Your task to perform on an android device: add a contact Image 0: 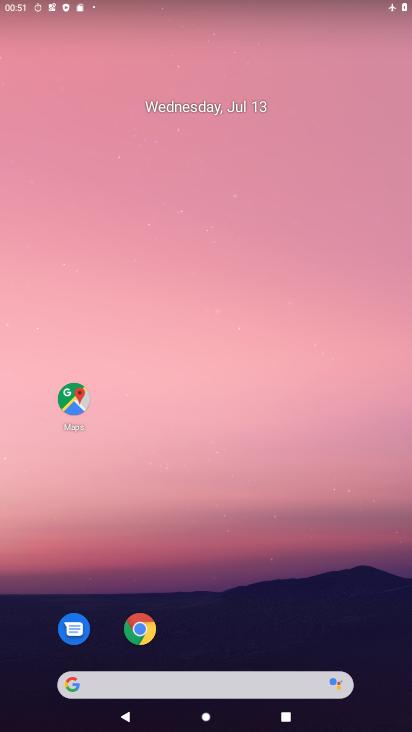
Step 0: drag from (234, 638) to (231, 379)
Your task to perform on an android device: add a contact Image 1: 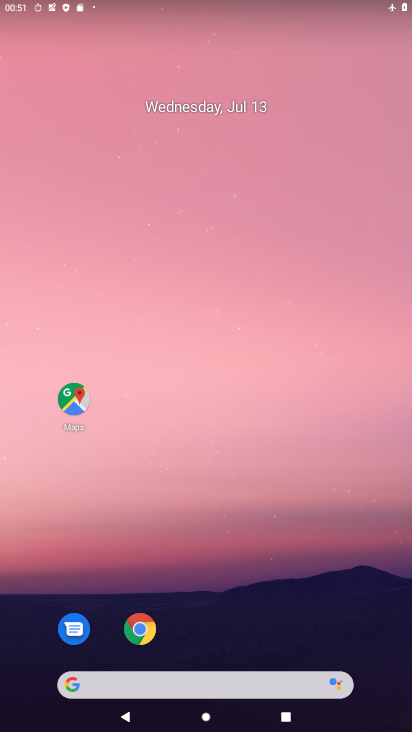
Step 1: drag from (220, 629) to (239, 255)
Your task to perform on an android device: add a contact Image 2: 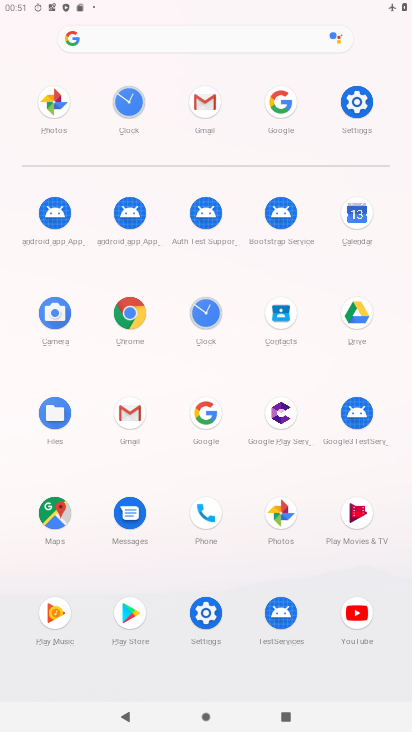
Step 2: click (273, 314)
Your task to perform on an android device: add a contact Image 3: 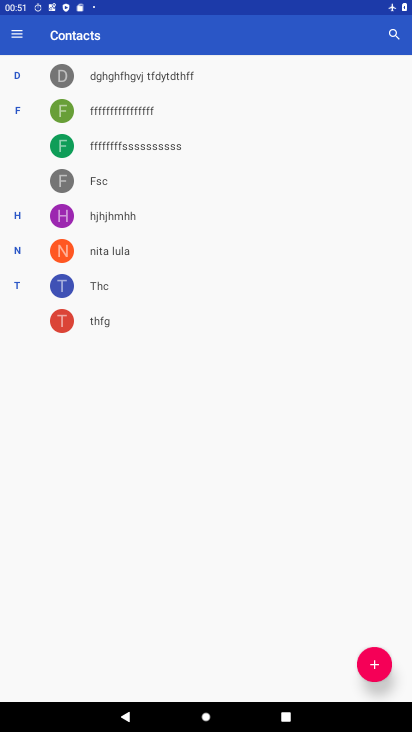
Step 3: click (380, 654)
Your task to perform on an android device: add a contact Image 4: 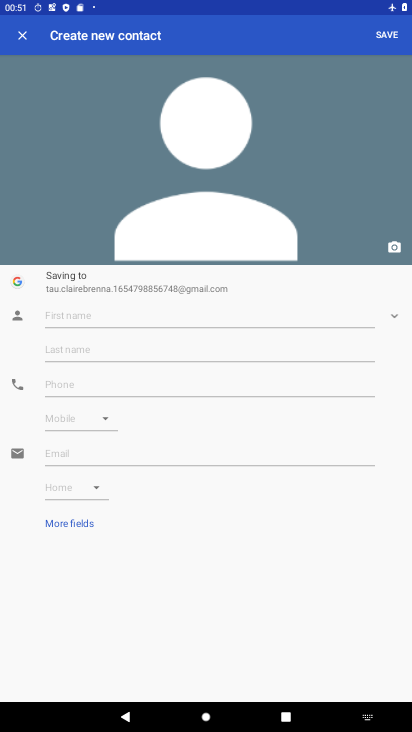
Step 4: type "gdgh"
Your task to perform on an android device: add a contact Image 5: 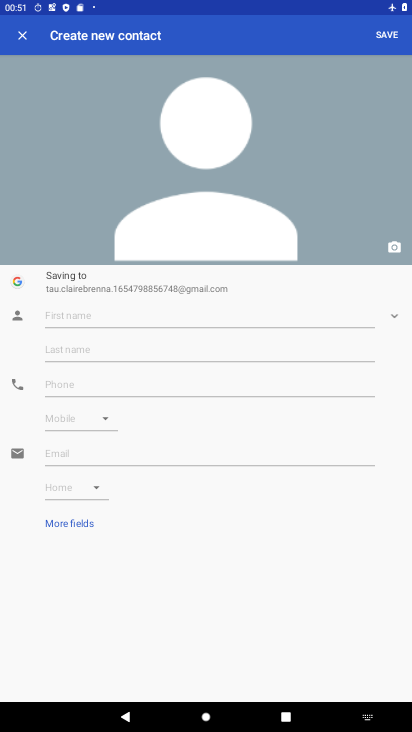
Step 5: click (91, 382)
Your task to perform on an android device: add a contact Image 6: 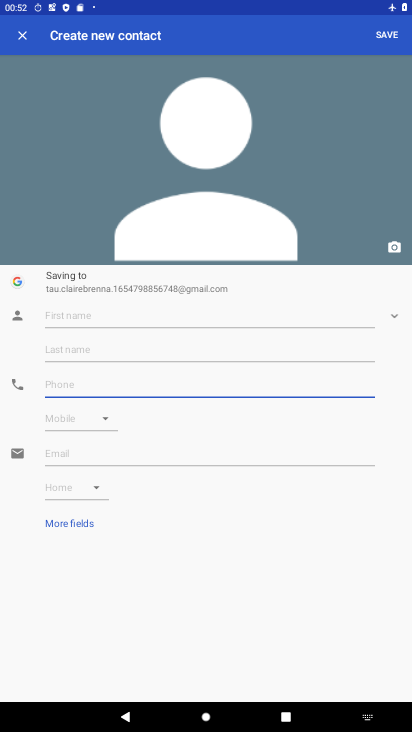
Step 6: type "6786574576"
Your task to perform on an android device: add a contact Image 7: 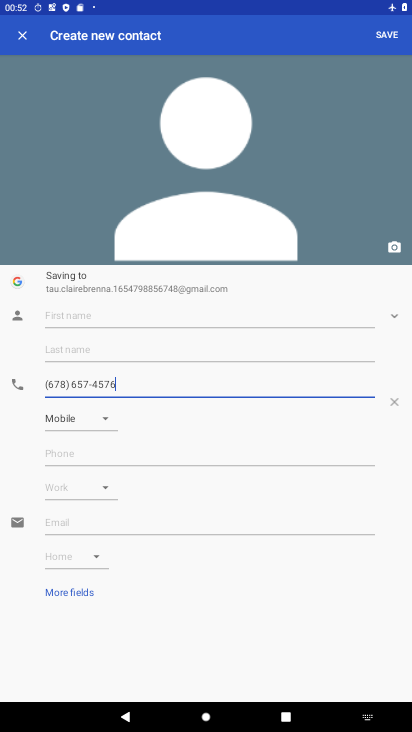
Step 7: click (382, 45)
Your task to perform on an android device: add a contact Image 8: 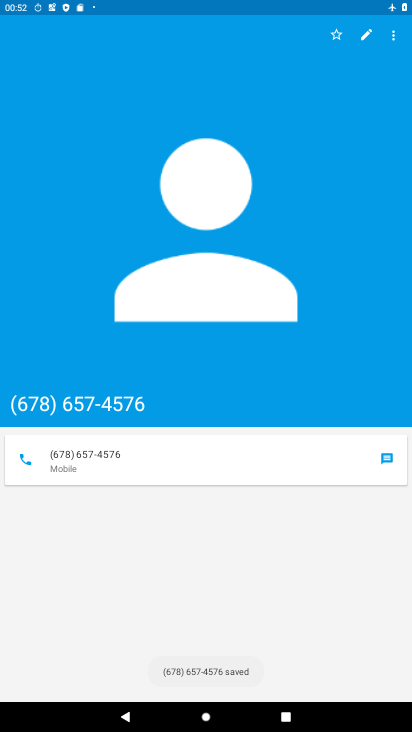
Step 8: task complete